Your task to perform on an android device: Do I have any events this weekend? Image 0: 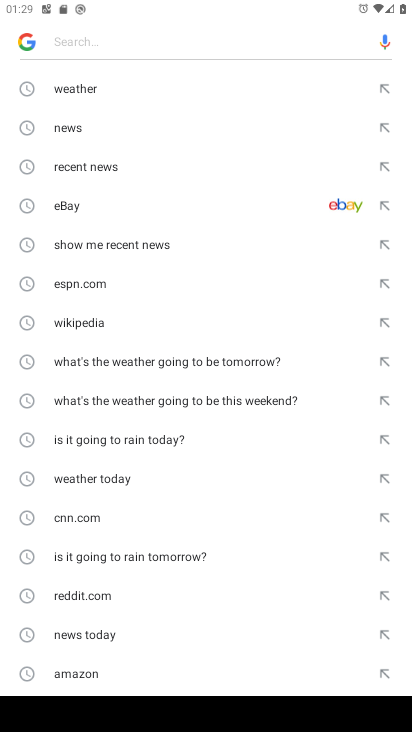
Step 0: press home button
Your task to perform on an android device: Do I have any events this weekend? Image 1: 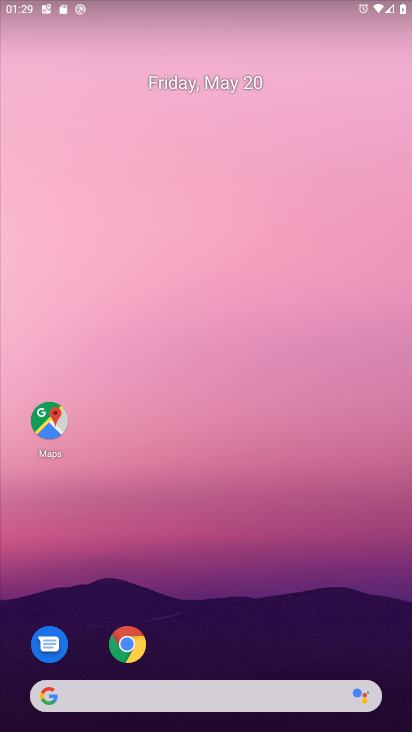
Step 1: drag from (151, 653) to (136, 329)
Your task to perform on an android device: Do I have any events this weekend? Image 2: 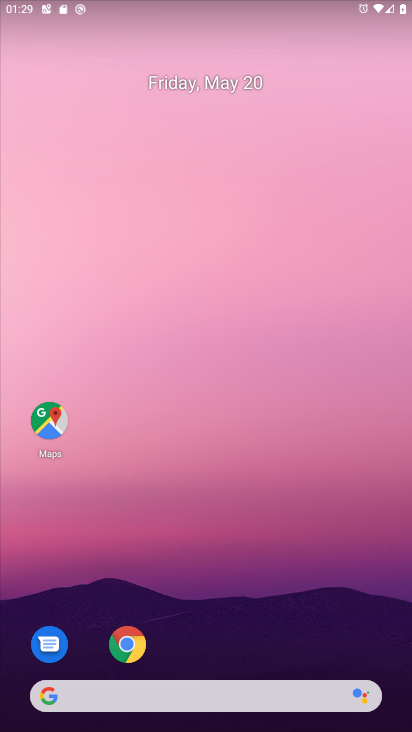
Step 2: drag from (227, 661) to (229, 211)
Your task to perform on an android device: Do I have any events this weekend? Image 3: 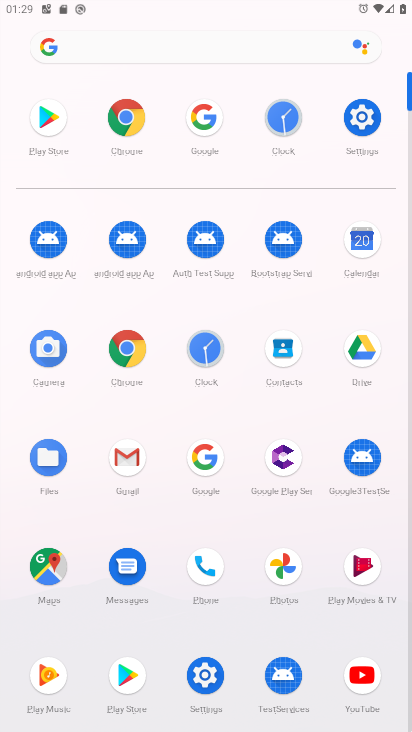
Step 3: click (363, 234)
Your task to perform on an android device: Do I have any events this weekend? Image 4: 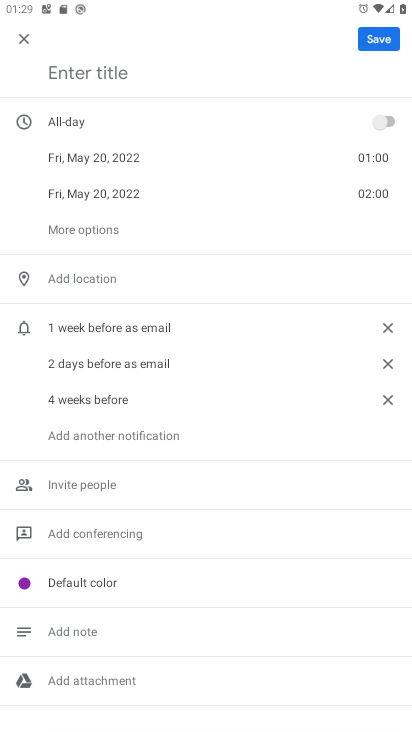
Step 4: click (21, 34)
Your task to perform on an android device: Do I have any events this weekend? Image 5: 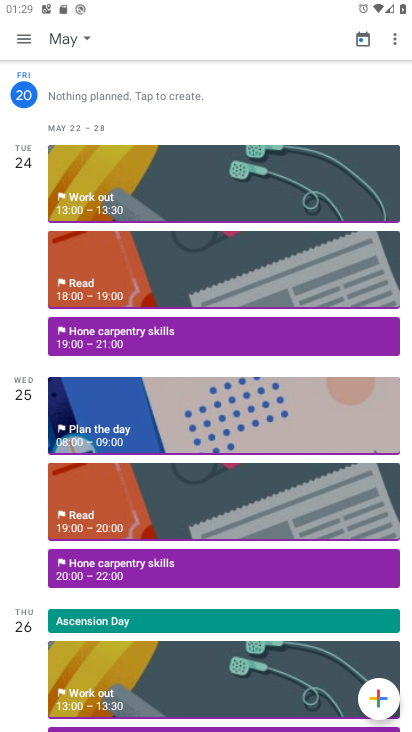
Step 5: click (67, 95)
Your task to perform on an android device: Do I have any events this weekend? Image 6: 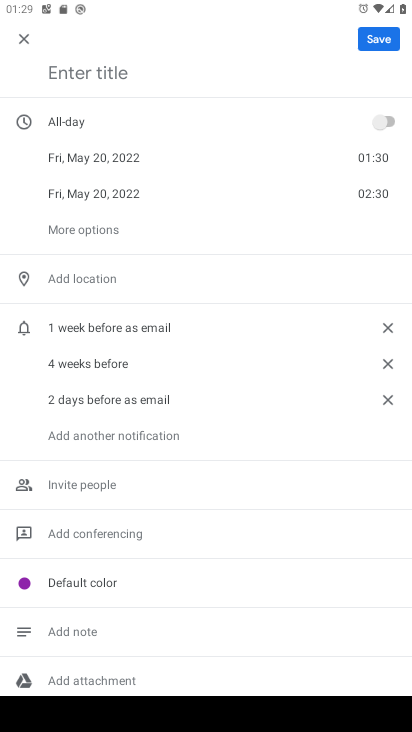
Step 6: task complete